Your task to perform on an android device: open app "Nova Launcher" (install if not already installed) and enter user name: "haggard@gmail.com" and password: "sadder" Image 0: 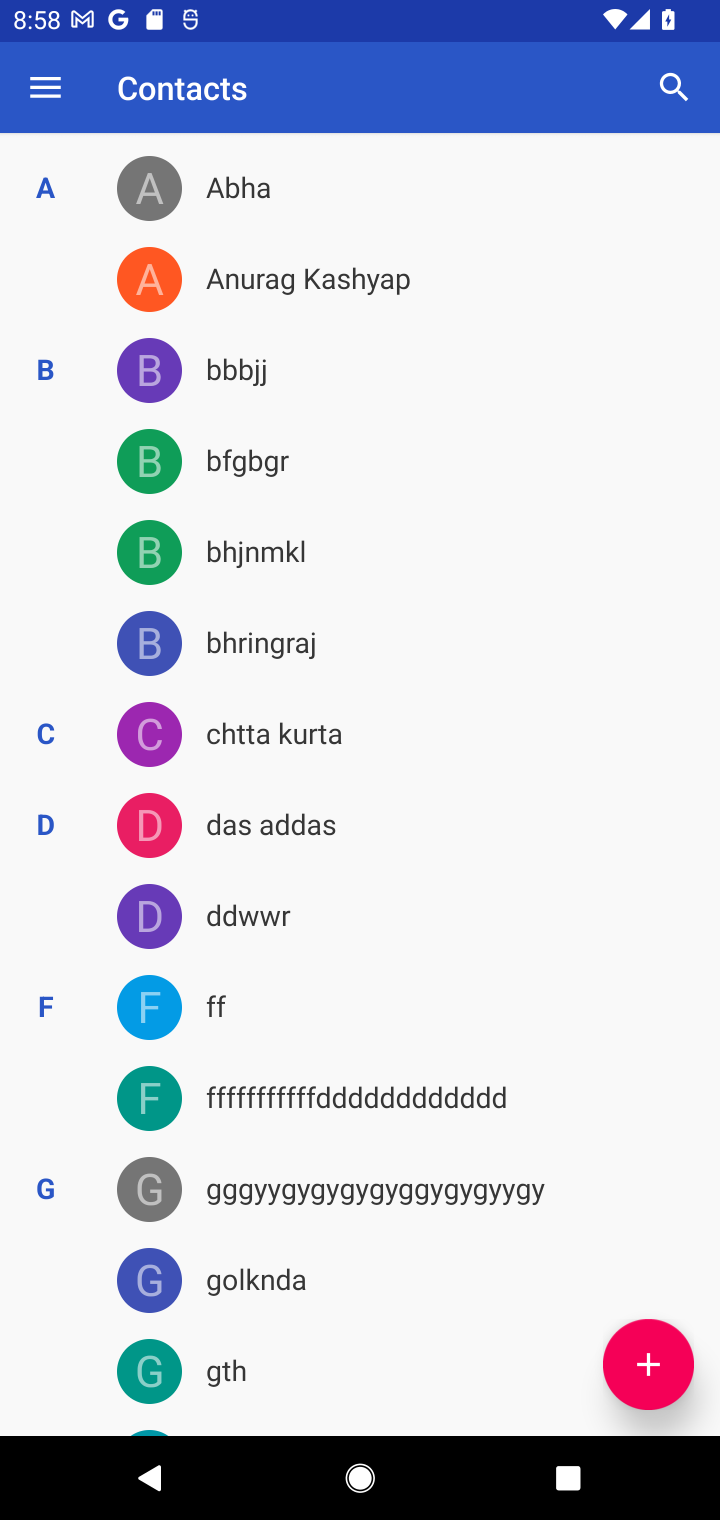
Step 0: press home button
Your task to perform on an android device: open app "Nova Launcher" (install if not already installed) and enter user name: "haggard@gmail.com" and password: "sadder" Image 1: 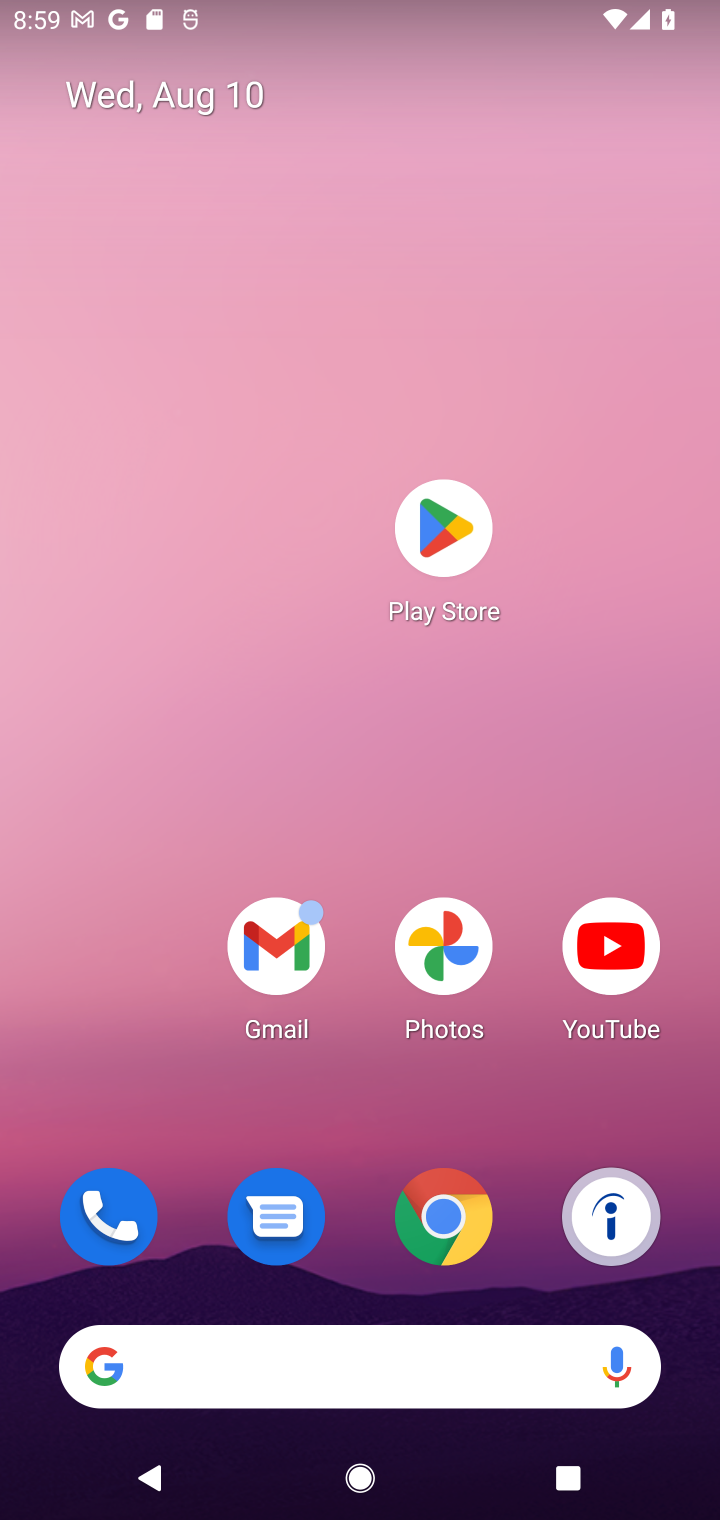
Step 1: click (459, 512)
Your task to perform on an android device: open app "Nova Launcher" (install if not already installed) and enter user name: "haggard@gmail.com" and password: "sadder" Image 2: 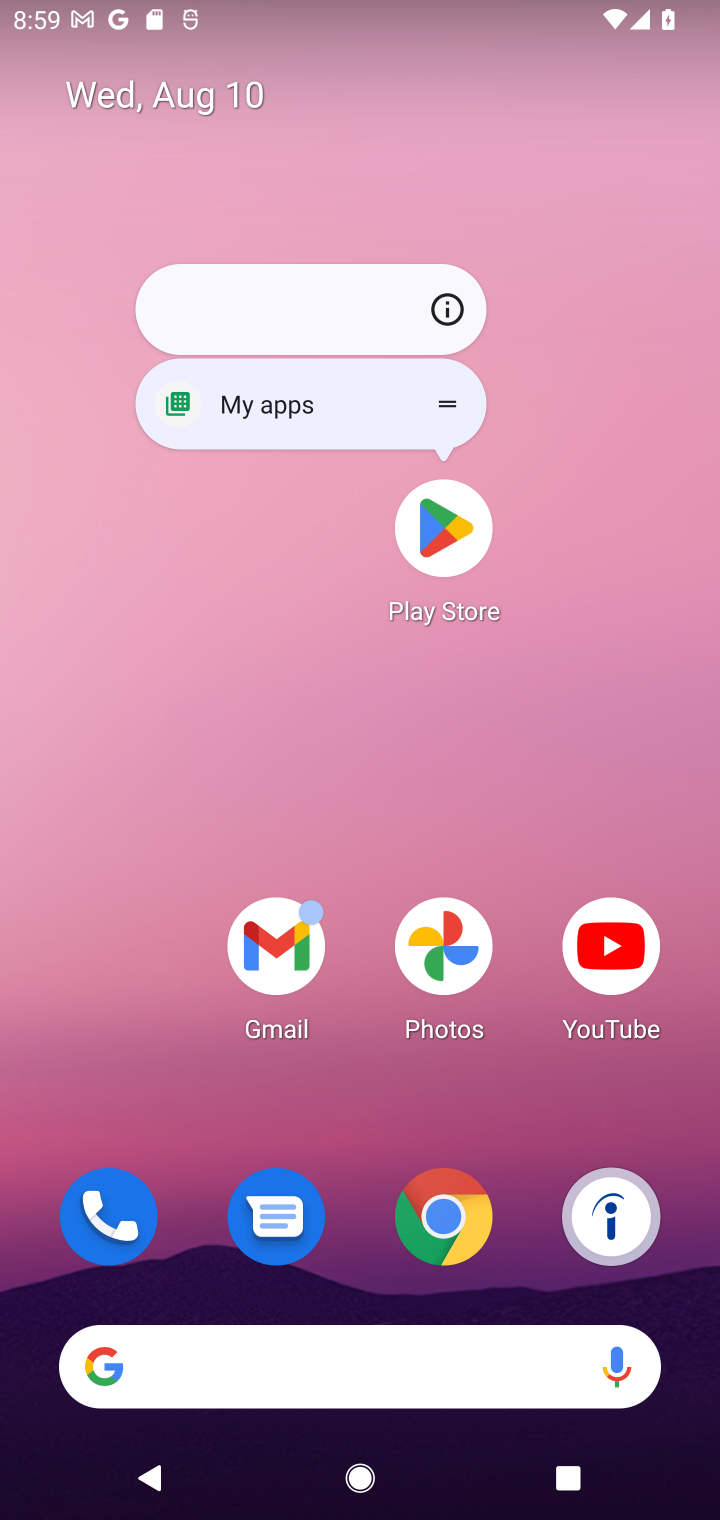
Step 2: click (454, 517)
Your task to perform on an android device: open app "Nova Launcher" (install if not already installed) and enter user name: "haggard@gmail.com" and password: "sadder" Image 3: 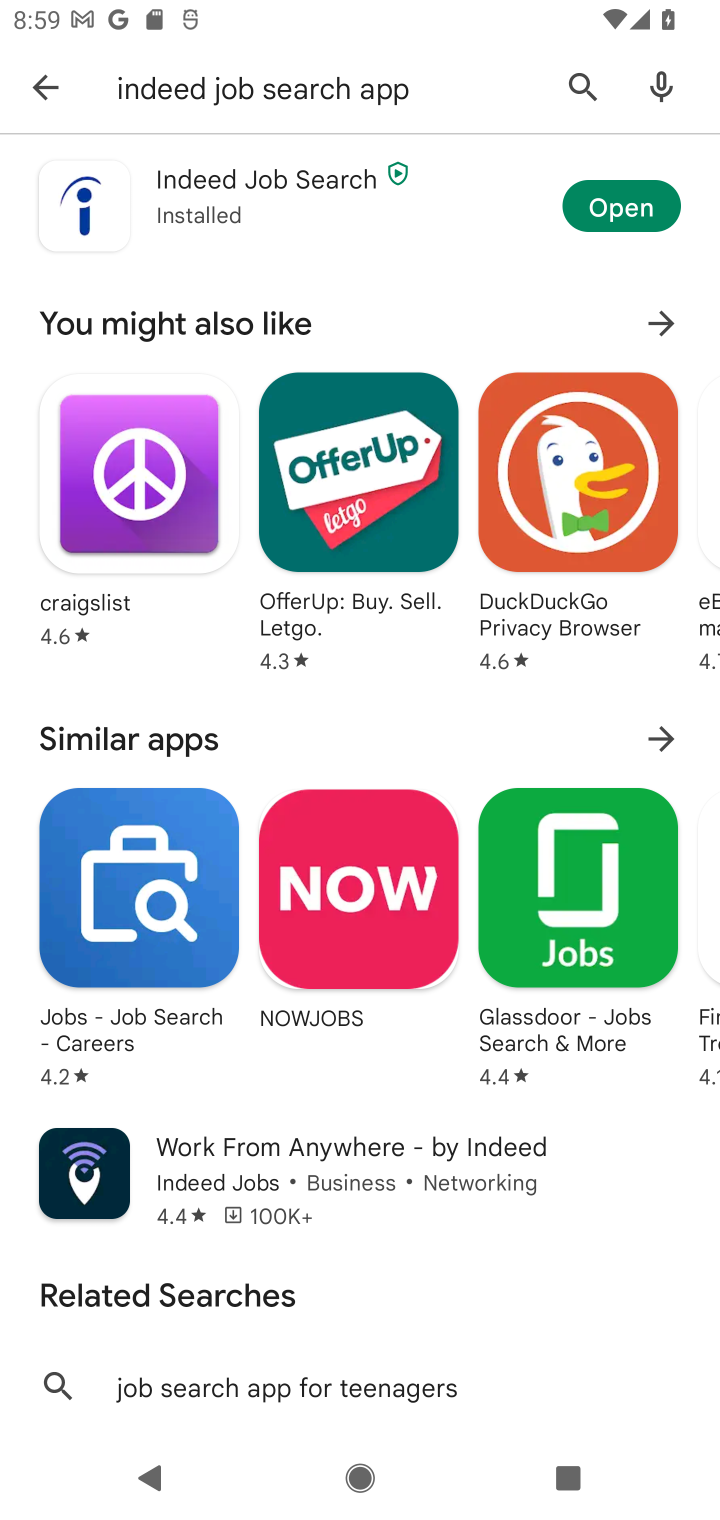
Step 3: click (570, 67)
Your task to perform on an android device: open app "Nova Launcher" (install if not already installed) and enter user name: "haggard@gmail.com" and password: "sadder" Image 4: 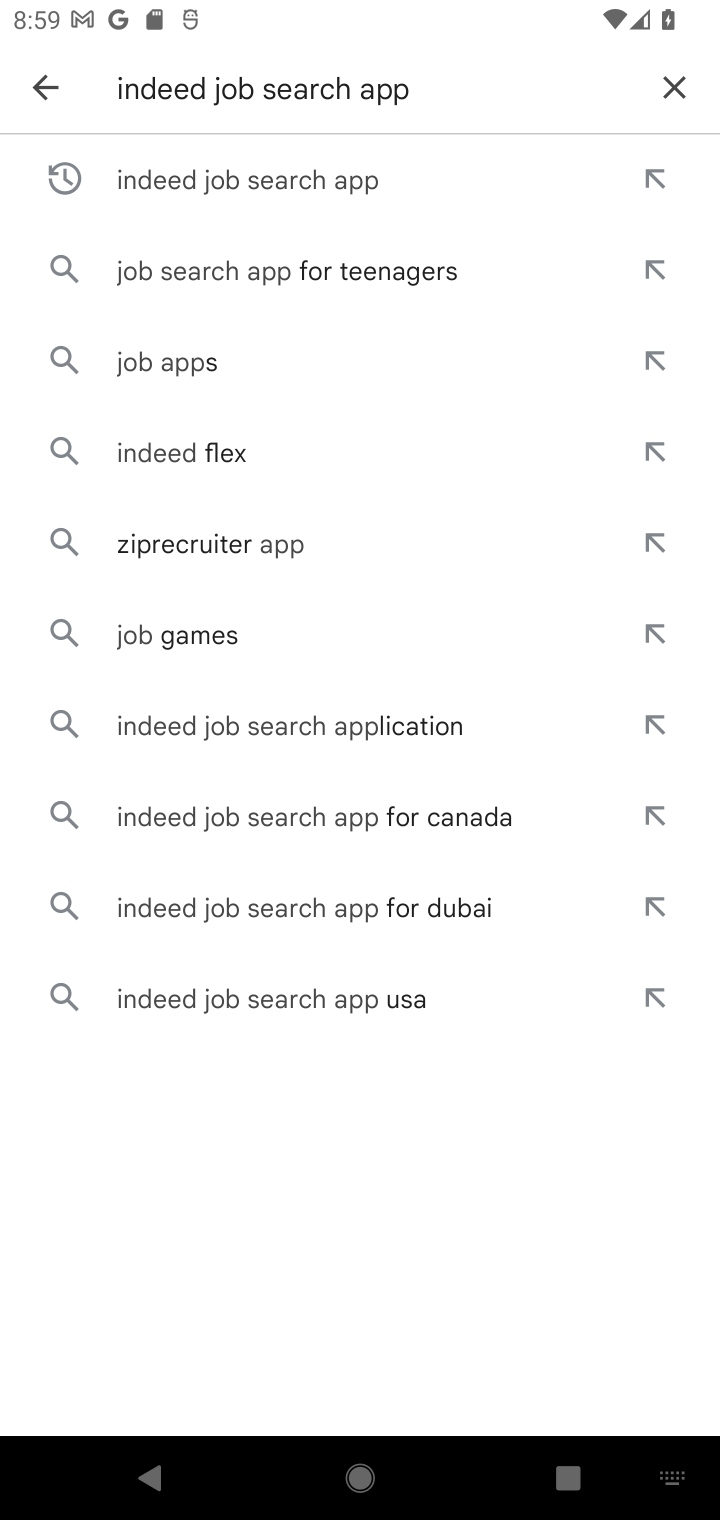
Step 4: click (683, 96)
Your task to perform on an android device: open app "Nova Launcher" (install if not already installed) and enter user name: "haggard@gmail.com" and password: "sadder" Image 5: 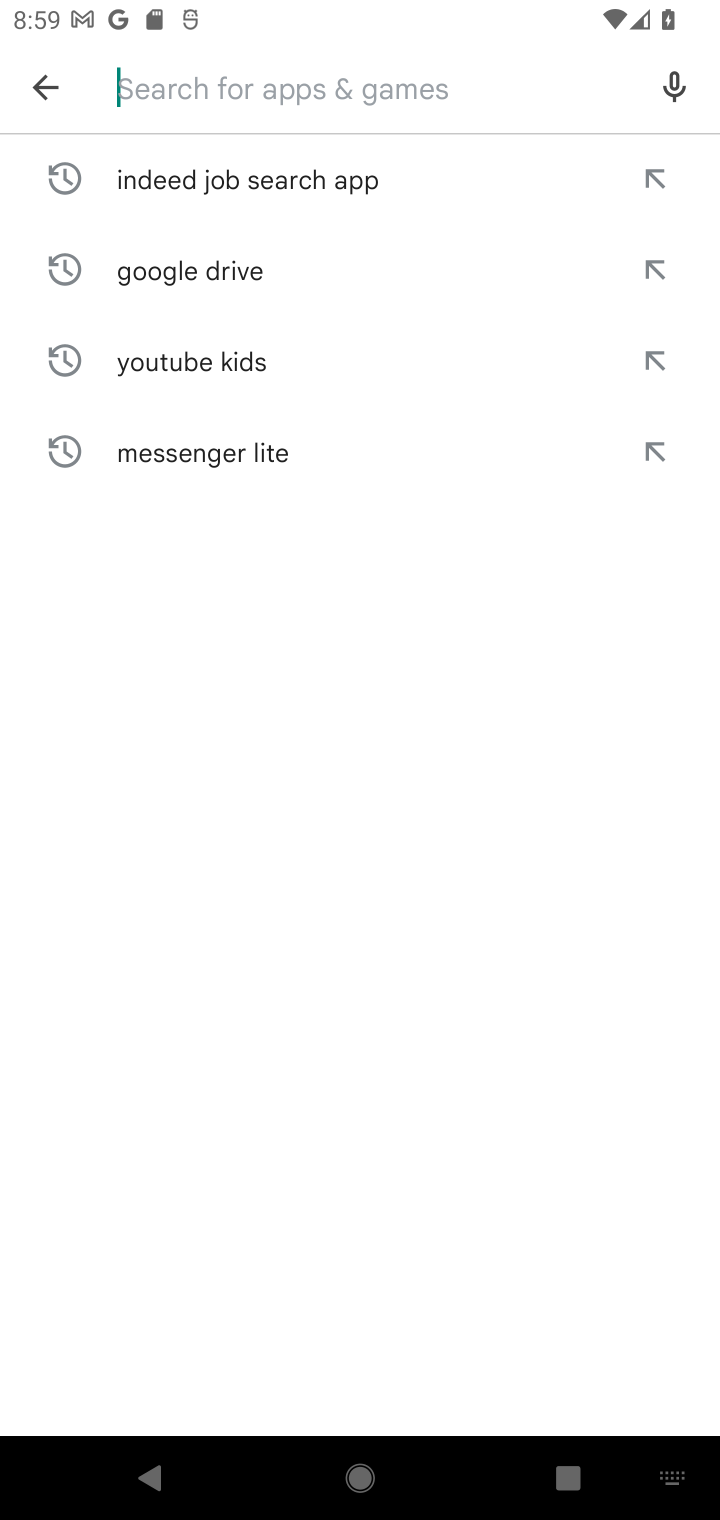
Step 5: type "Nova Launcher"
Your task to perform on an android device: open app "Nova Launcher" (install if not already installed) and enter user name: "haggard@gmail.com" and password: "sadder" Image 6: 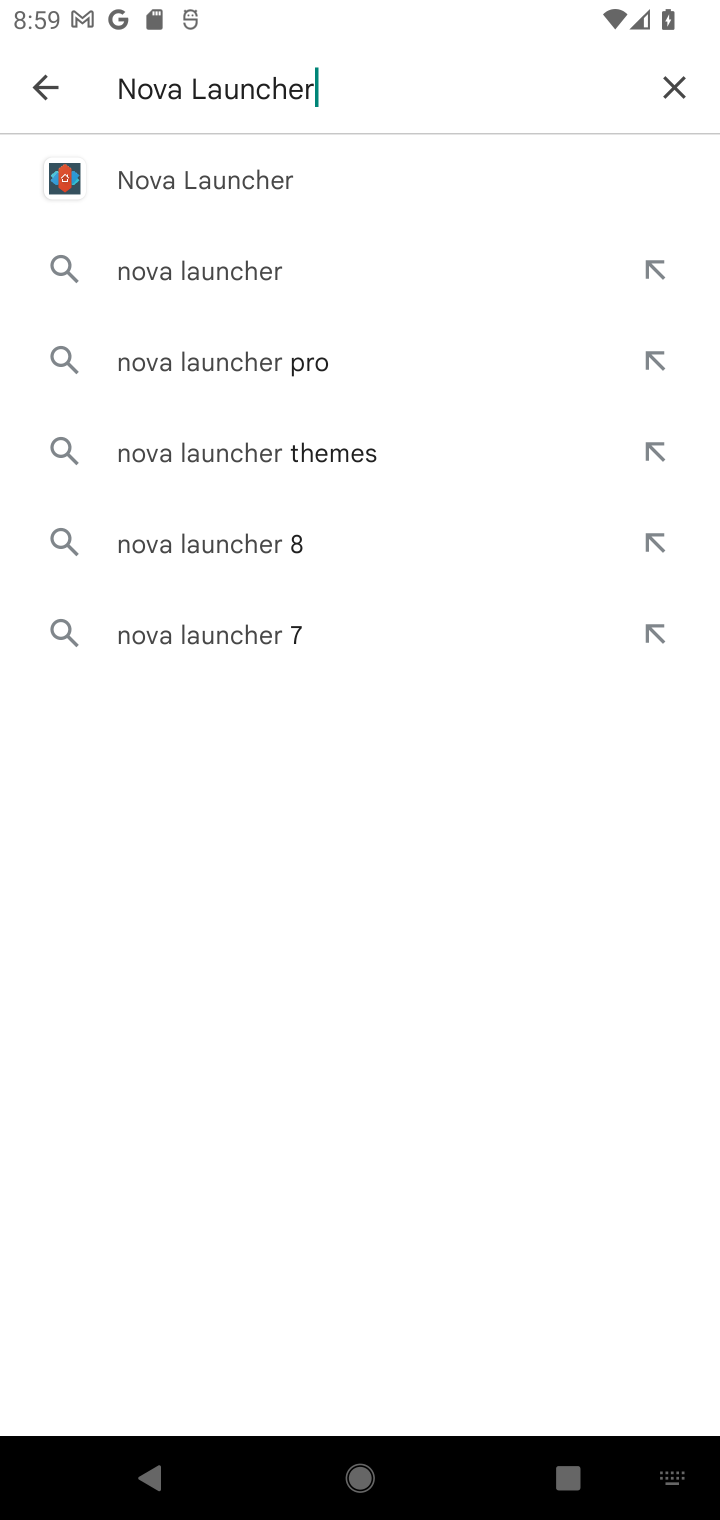
Step 6: click (281, 177)
Your task to perform on an android device: open app "Nova Launcher" (install if not already installed) and enter user name: "haggard@gmail.com" and password: "sadder" Image 7: 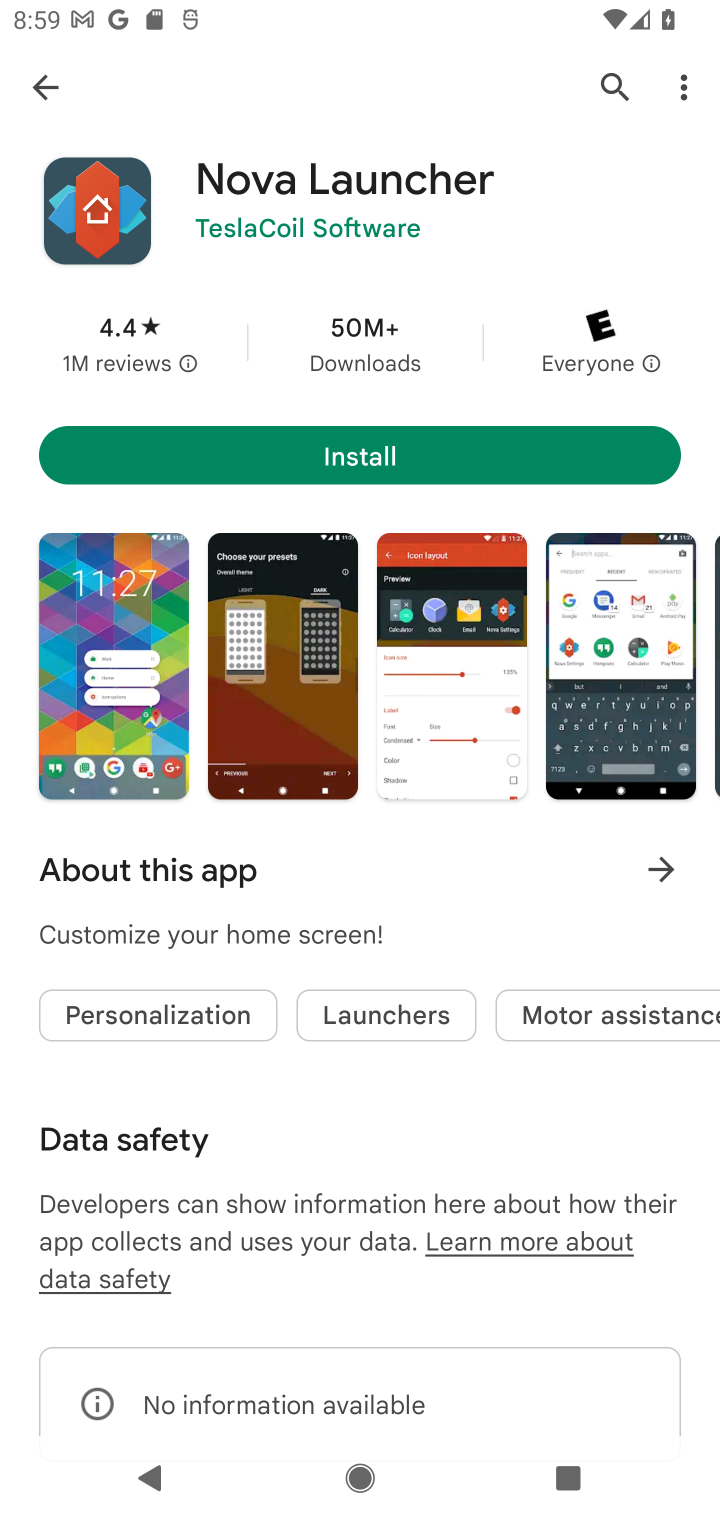
Step 7: click (377, 450)
Your task to perform on an android device: open app "Nova Launcher" (install if not already installed) and enter user name: "haggard@gmail.com" and password: "sadder" Image 8: 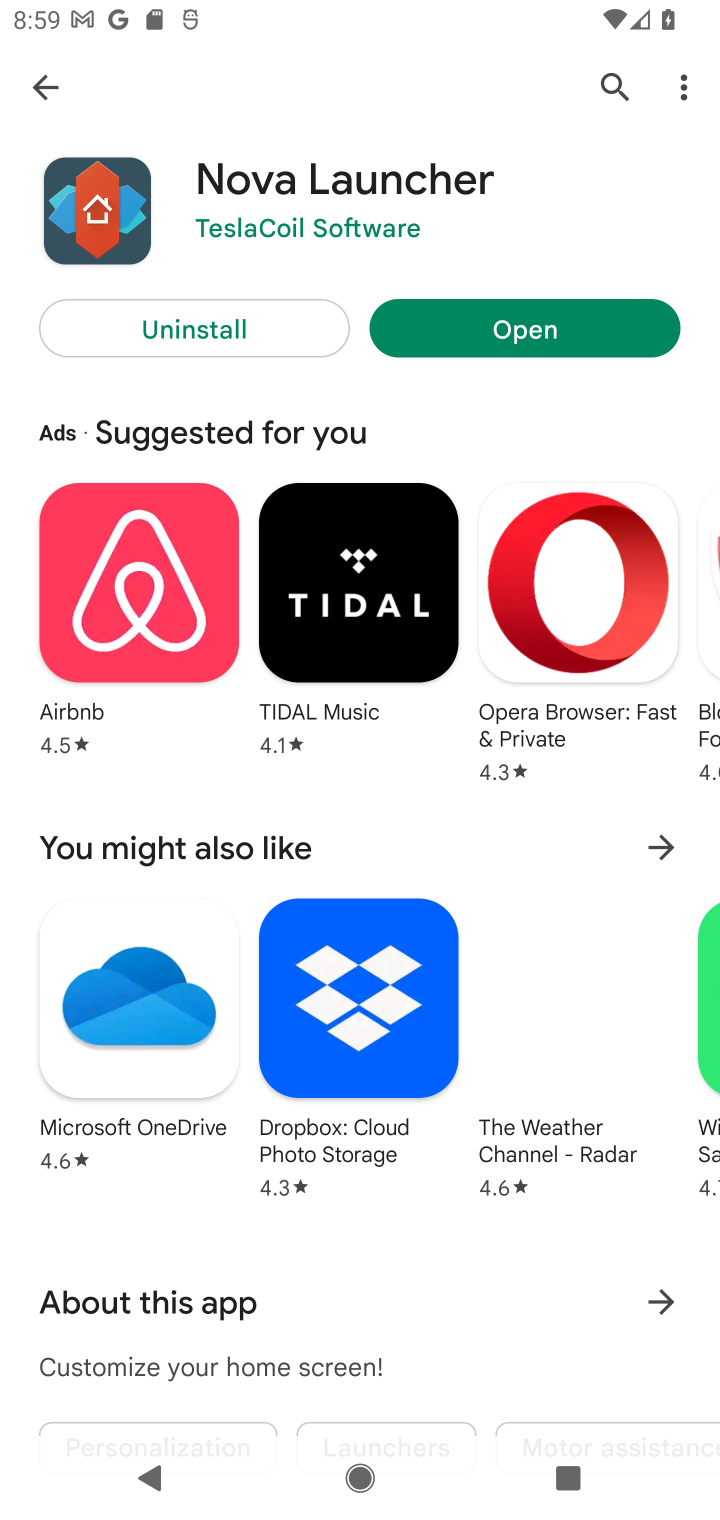
Step 8: click (543, 331)
Your task to perform on an android device: open app "Nova Launcher" (install if not already installed) and enter user name: "haggard@gmail.com" and password: "sadder" Image 9: 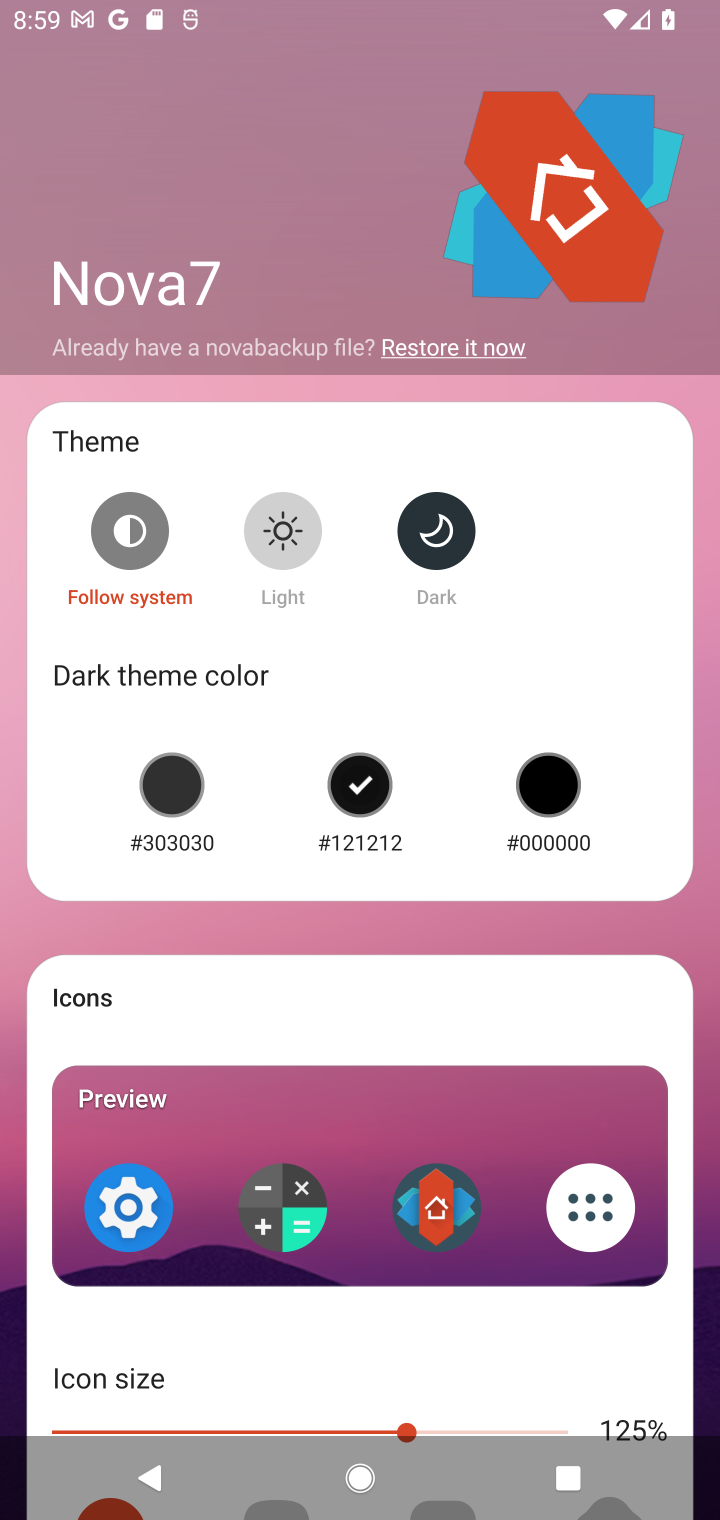
Step 9: task complete